Your task to perform on an android device: turn vacation reply on in the gmail app Image 0: 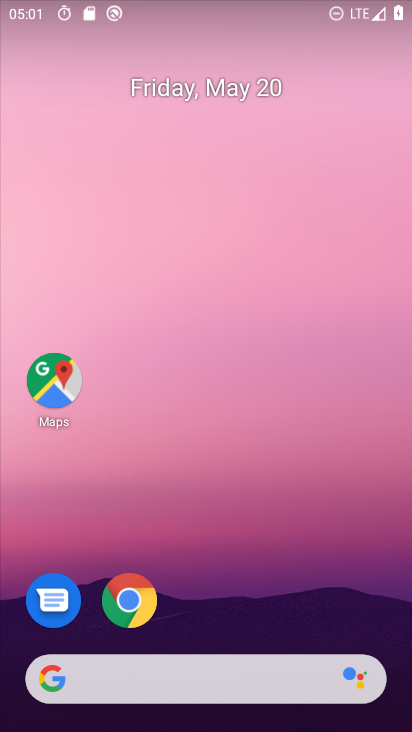
Step 0: drag from (254, 626) to (374, 78)
Your task to perform on an android device: turn vacation reply on in the gmail app Image 1: 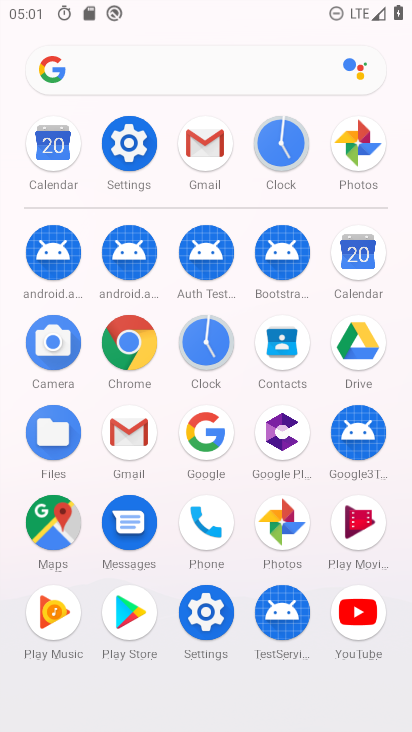
Step 1: click (203, 143)
Your task to perform on an android device: turn vacation reply on in the gmail app Image 2: 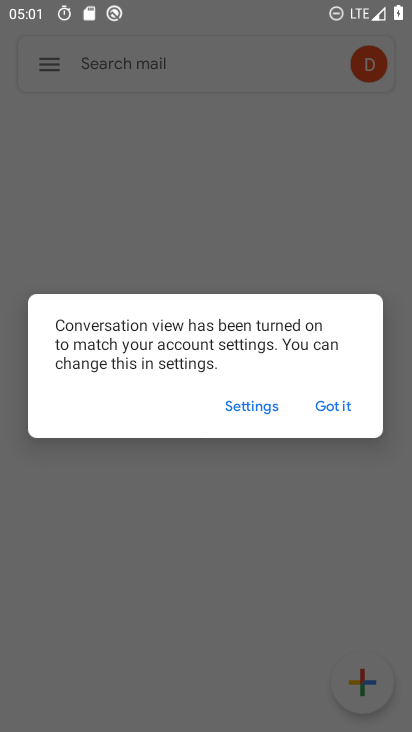
Step 2: click (333, 388)
Your task to perform on an android device: turn vacation reply on in the gmail app Image 3: 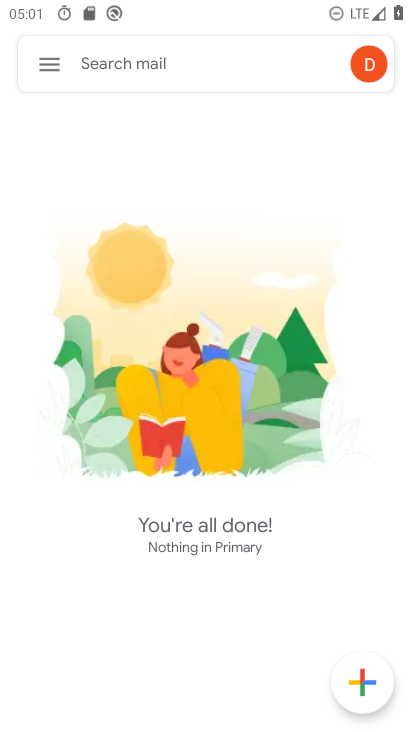
Step 3: click (41, 66)
Your task to perform on an android device: turn vacation reply on in the gmail app Image 4: 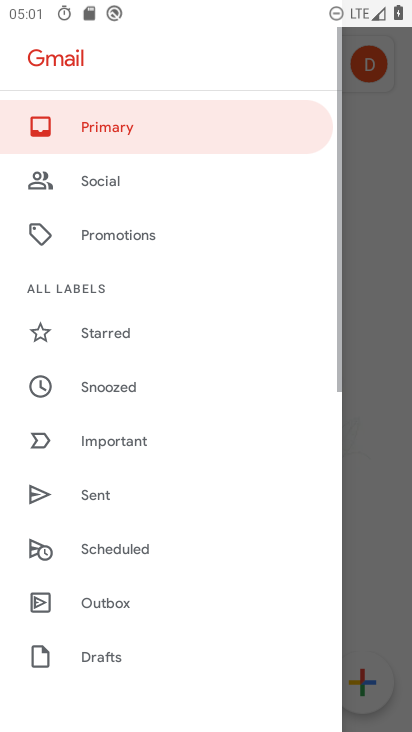
Step 4: drag from (113, 623) to (275, 59)
Your task to perform on an android device: turn vacation reply on in the gmail app Image 5: 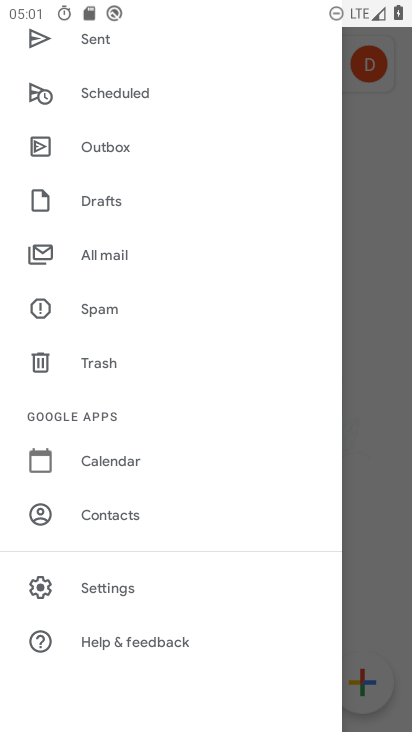
Step 5: click (98, 592)
Your task to perform on an android device: turn vacation reply on in the gmail app Image 6: 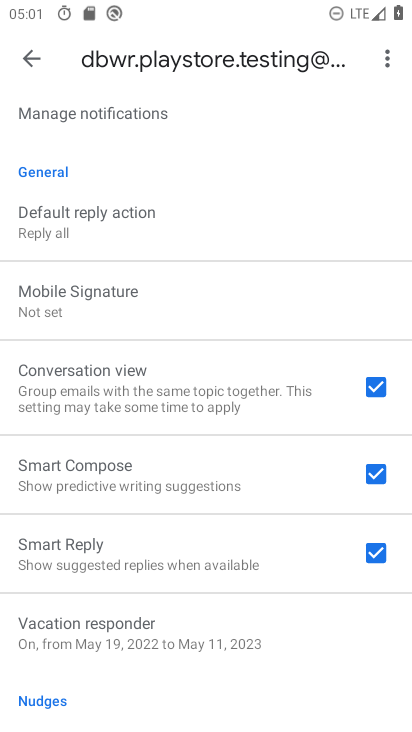
Step 6: click (164, 626)
Your task to perform on an android device: turn vacation reply on in the gmail app Image 7: 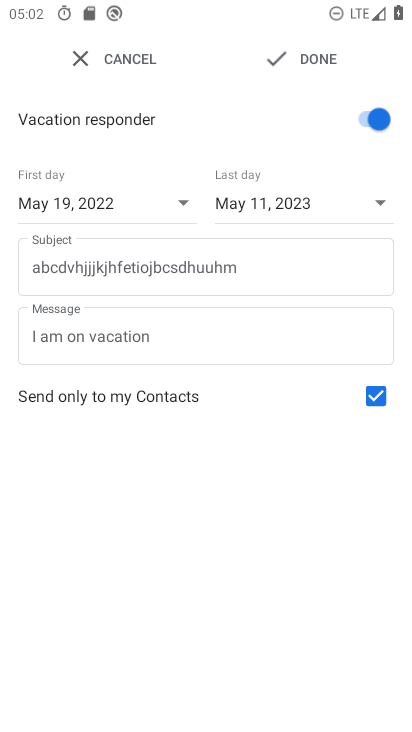
Step 7: task complete